Your task to perform on an android device: turn off data saver in the chrome app Image 0: 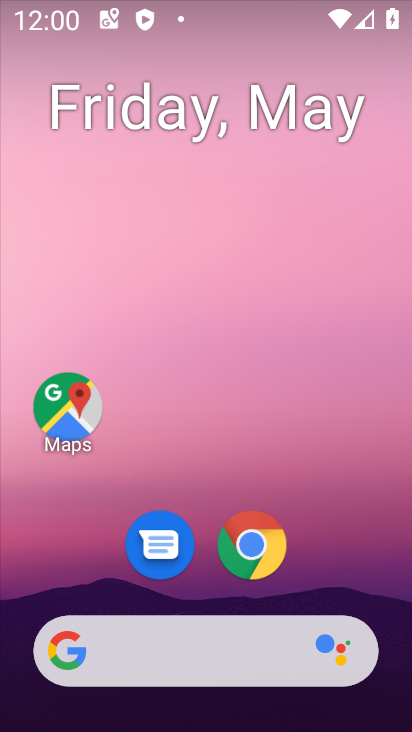
Step 0: click (256, 535)
Your task to perform on an android device: turn off data saver in the chrome app Image 1: 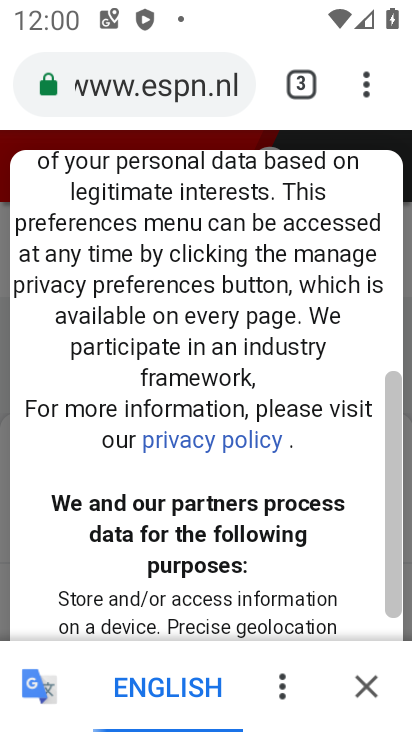
Step 1: click (362, 80)
Your task to perform on an android device: turn off data saver in the chrome app Image 2: 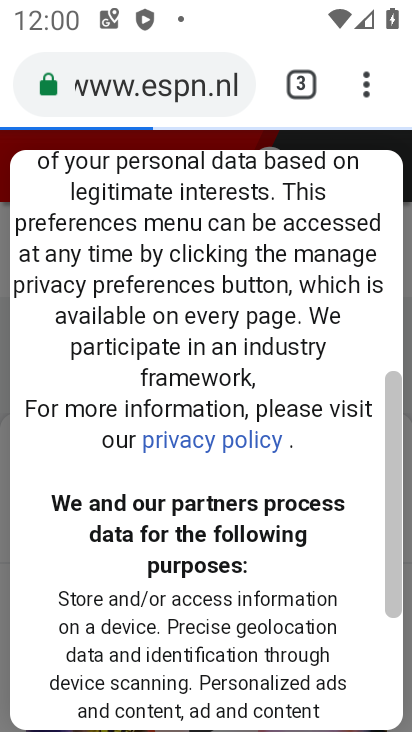
Step 2: click (357, 82)
Your task to perform on an android device: turn off data saver in the chrome app Image 3: 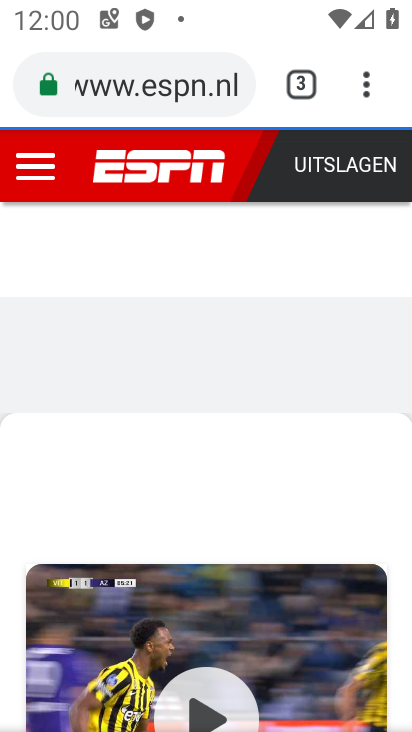
Step 3: click (368, 84)
Your task to perform on an android device: turn off data saver in the chrome app Image 4: 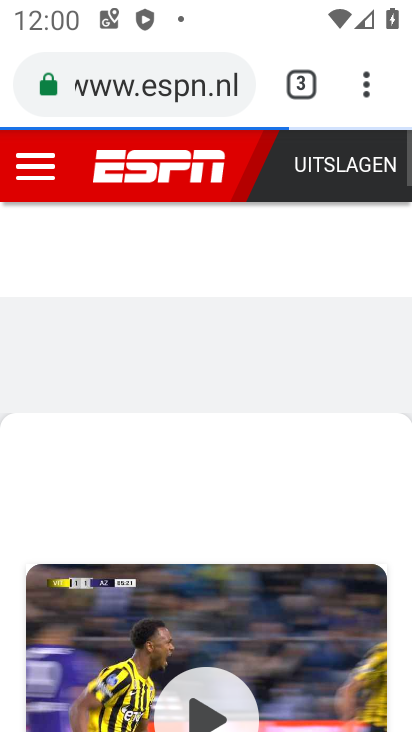
Step 4: click (361, 93)
Your task to perform on an android device: turn off data saver in the chrome app Image 5: 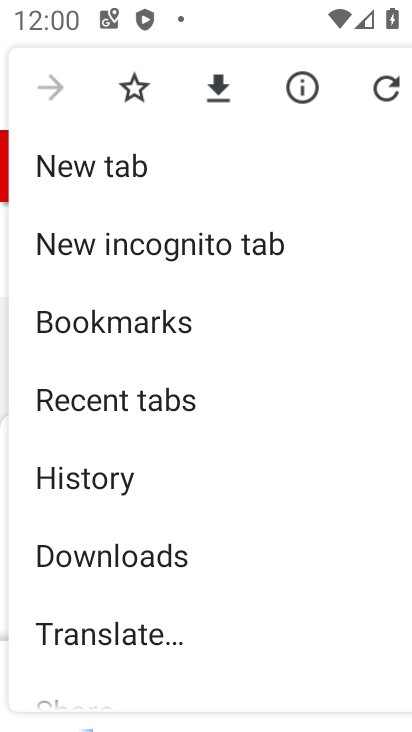
Step 5: drag from (188, 636) to (242, 199)
Your task to perform on an android device: turn off data saver in the chrome app Image 6: 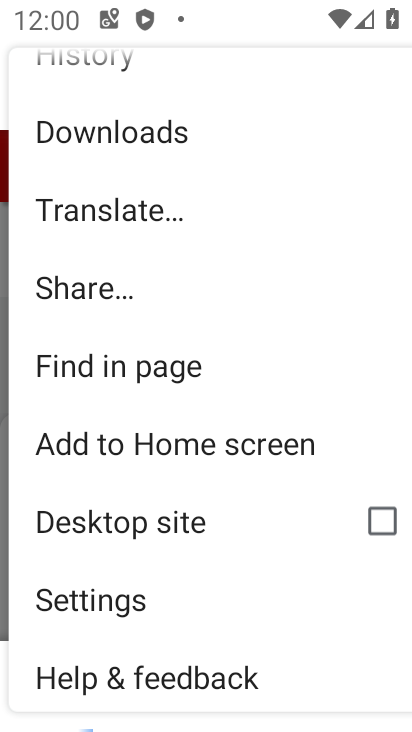
Step 6: click (141, 607)
Your task to perform on an android device: turn off data saver in the chrome app Image 7: 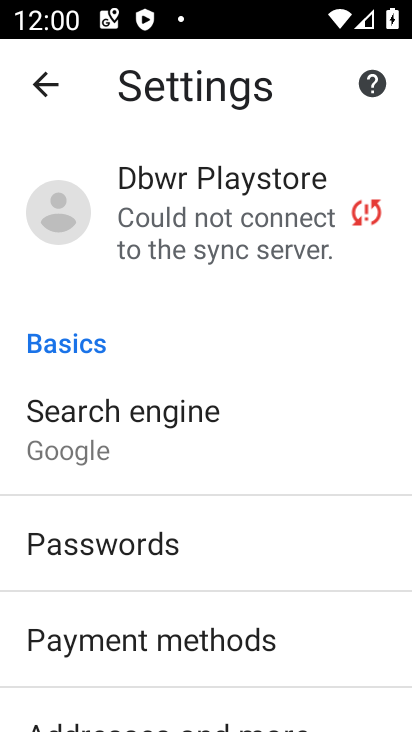
Step 7: drag from (196, 615) to (231, 300)
Your task to perform on an android device: turn off data saver in the chrome app Image 8: 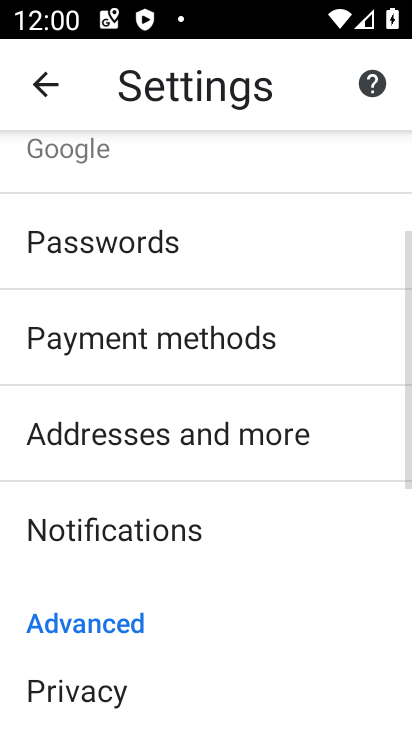
Step 8: drag from (150, 642) to (182, 208)
Your task to perform on an android device: turn off data saver in the chrome app Image 9: 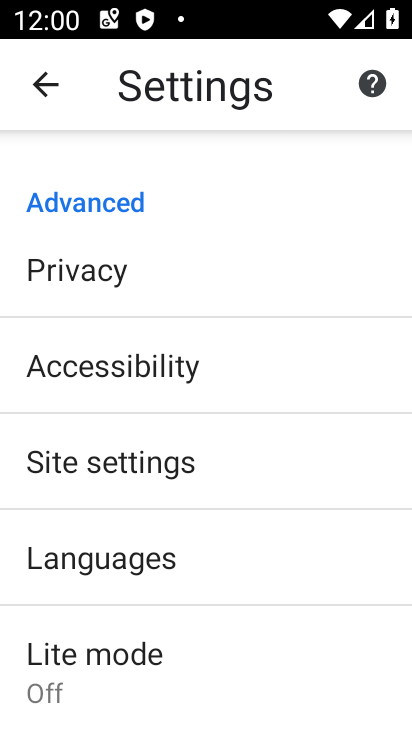
Step 9: drag from (149, 614) to (195, 319)
Your task to perform on an android device: turn off data saver in the chrome app Image 10: 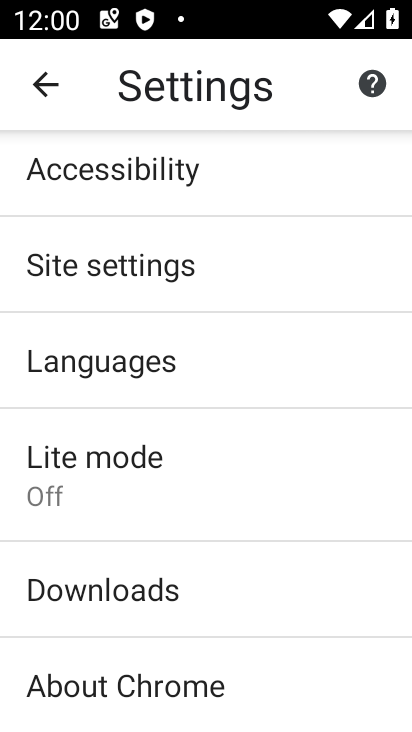
Step 10: click (125, 481)
Your task to perform on an android device: turn off data saver in the chrome app Image 11: 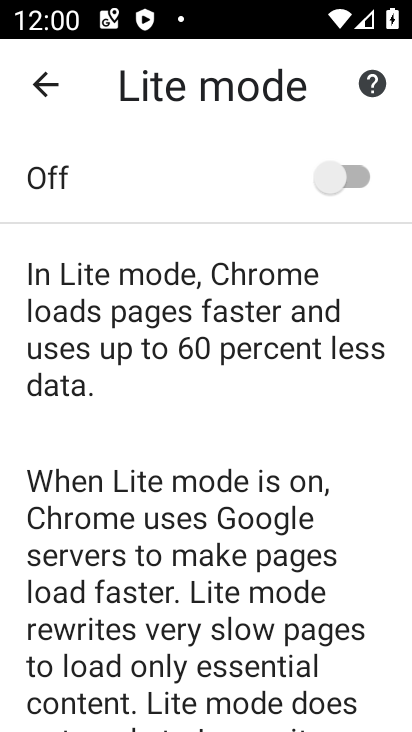
Step 11: task complete